Your task to perform on an android device: turn on wifi Image 0: 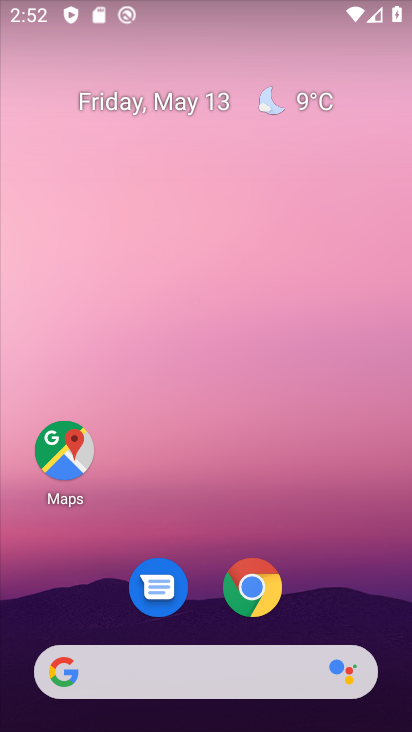
Step 0: drag from (317, 560) to (305, 308)
Your task to perform on an android device: turn on wifi Image 1: 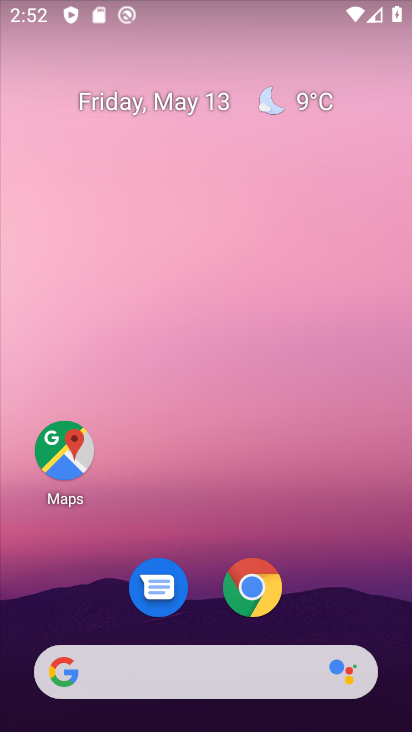
Step 1: drag from (304, 567) to (296, 161)
Your task to perform on an android device: turn on wifi Image 2: 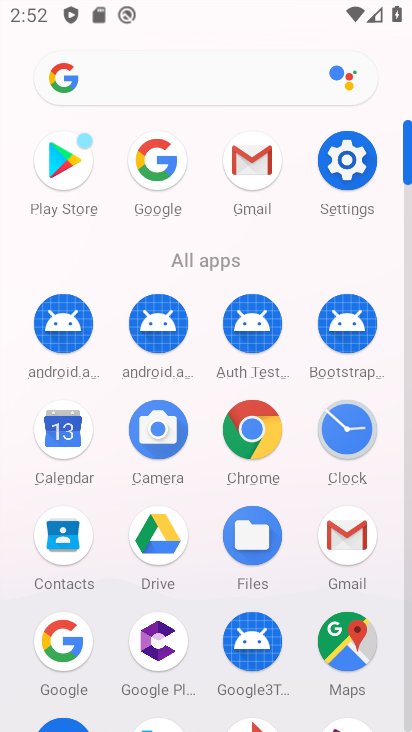
Step 2: click (330, 175)
Your task to perform on an android device: turn on wifi Image 3: 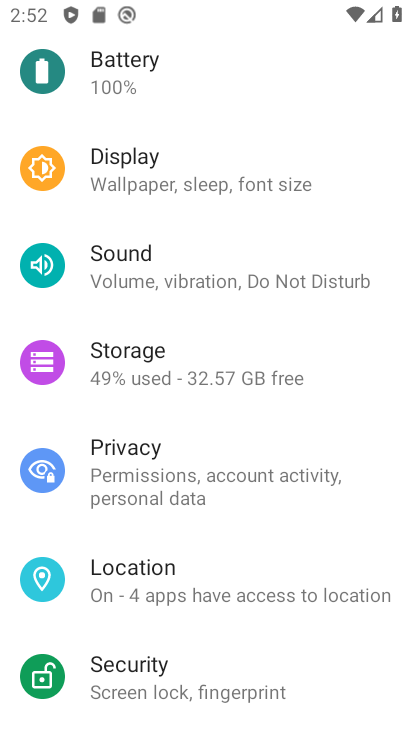
Step 3: drag from (209, 123) to (243, 564)
Your task to perform on an android device: turn on wifi Image 4: 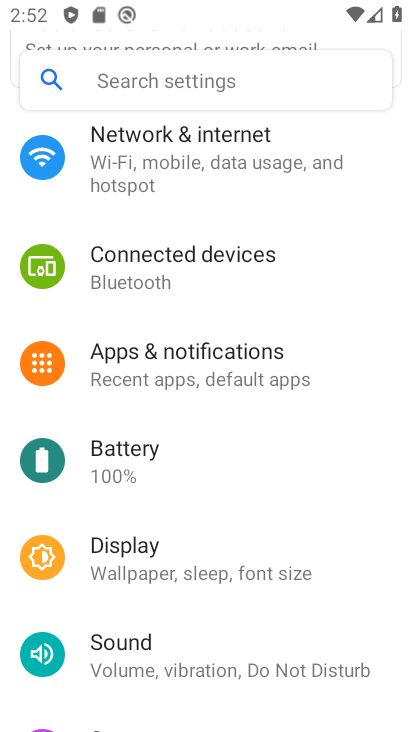
Step 4: drag from (209, 204) to (211, 602)
Your task to perform on an android device: turn on wifi Image 5: 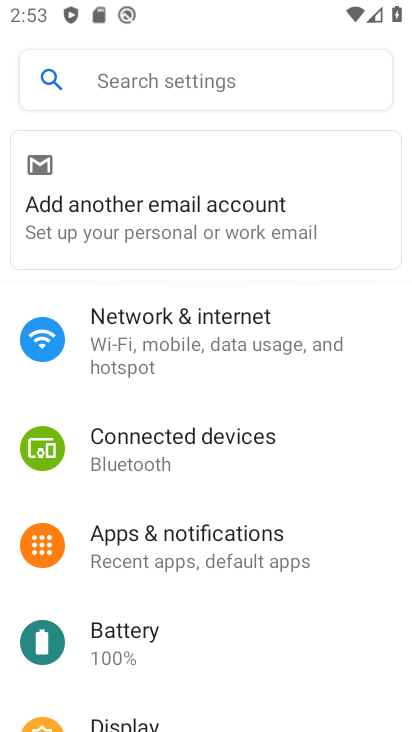
Step 5: click (182, 376)
Your task to perform on an android device: turn on wifi Image 6: 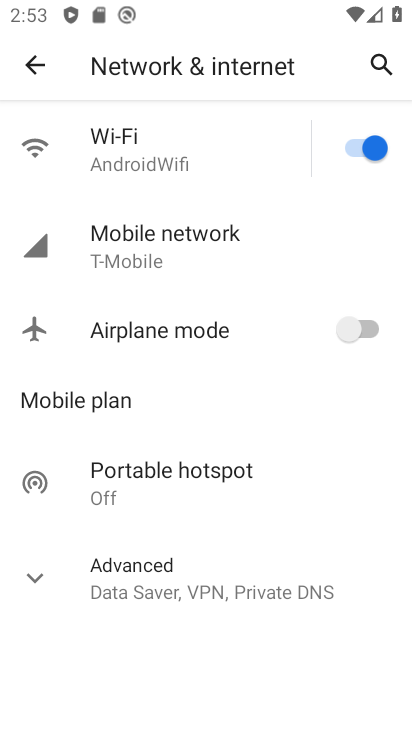
Step 6: task complete